Your task to perform on an android device: Show me popular videos on Youtube Image 0: 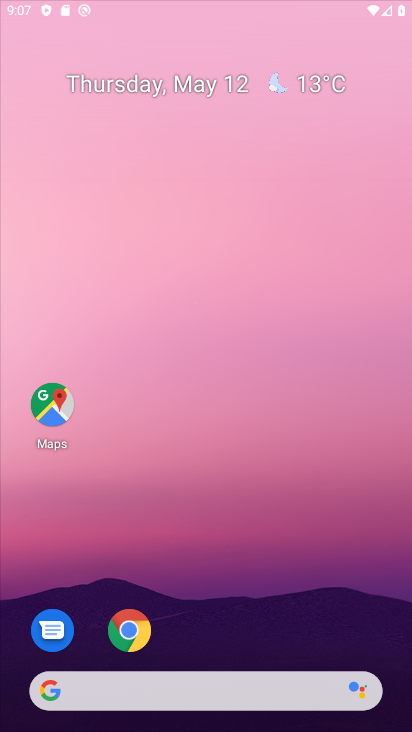
Step 0: drag from (198, 546) to (323, 122)
Your task to perform on an android device: Show me popular videos on Youtube Image 1: 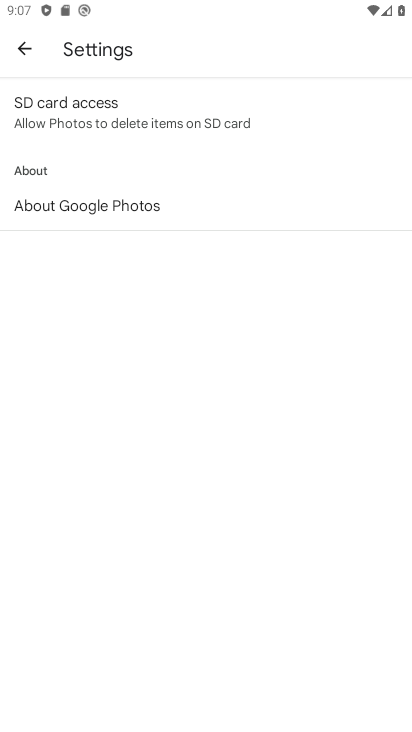
Step 1: press home button
Your task to perform on an android device: Show me popular videos on Youtube Image 2: 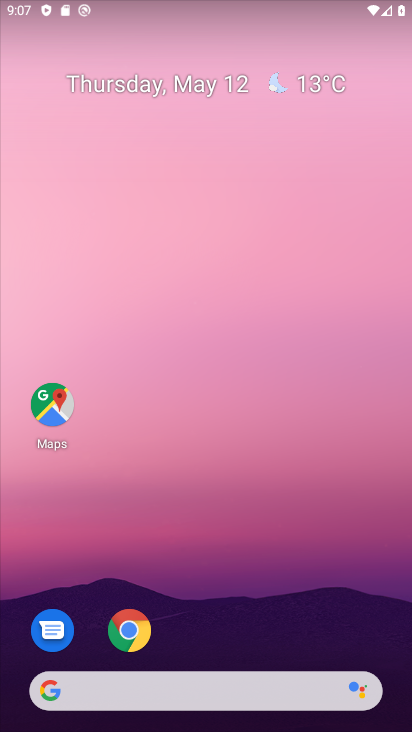
Step 2: drag from (224, 694) to (286, 248)
Your task to perform on an android device: Show me popular videos on Youtube Image 3: 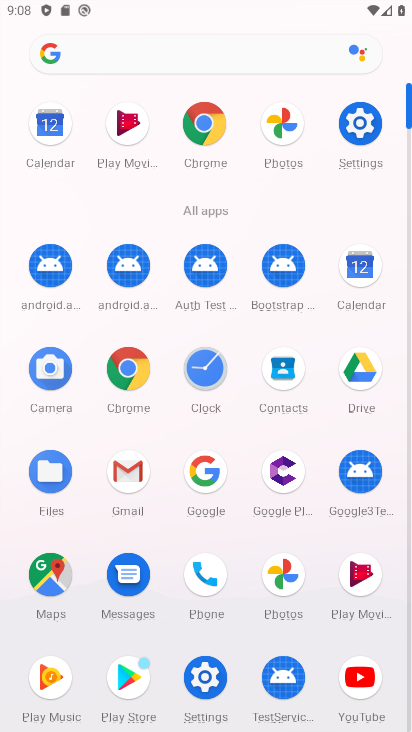
Step 3: click (374, 674)
Your task to perform on an android device: Show me popular videos on Youtube Image 4: 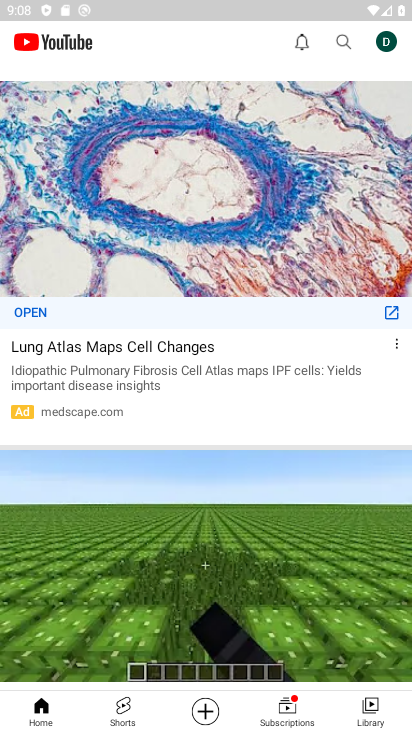
Step 4: task complete